Your task to perform on an android device: Open notification settings Image 0: 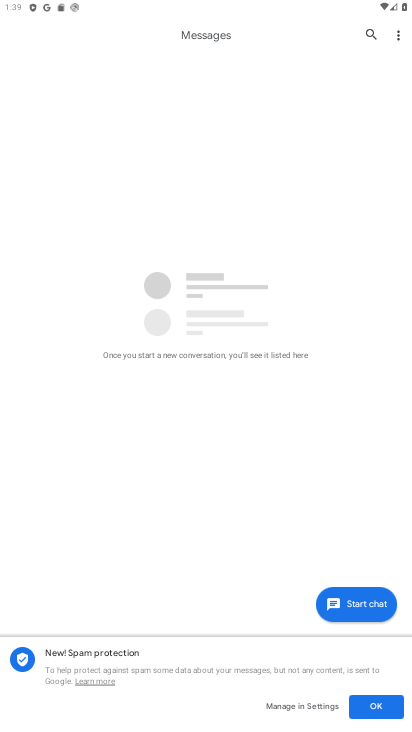
Step 0: press home button
Your task to perform on an android device: Open notification settings Image 1: 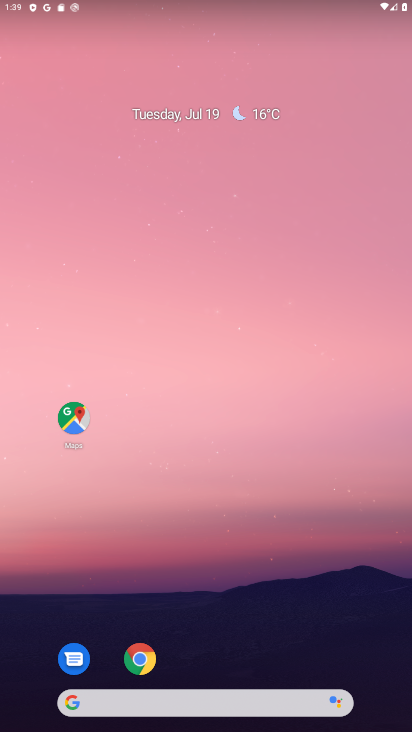
Step 1: drag from (228, 687) to (287, 225)
Your task to perform on an android device: Open notification settings Image 2: 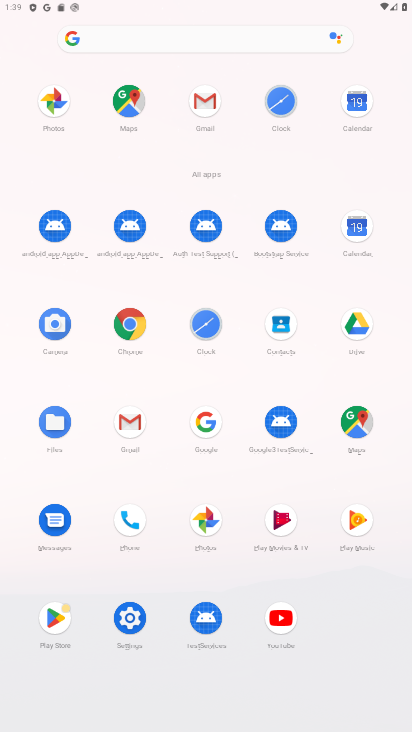
Step 2: click (129, 619)
Your task to perform on an android device: Open notification settings Image 3: 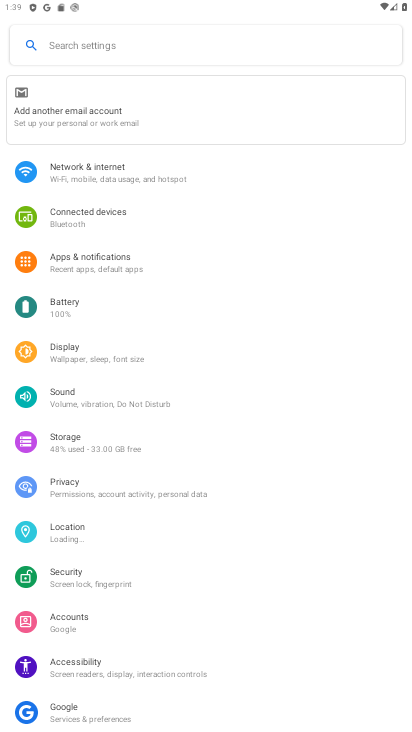
Step 3: click (117, 261)
Your task to perform on an android device: Open notification settings Image 4: 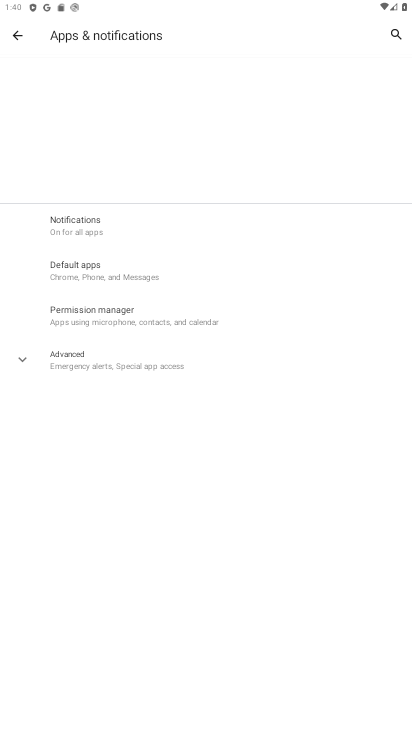
Step 4: click (170, 238)
Your task to perform on an android device: Open notification settings Image 5: 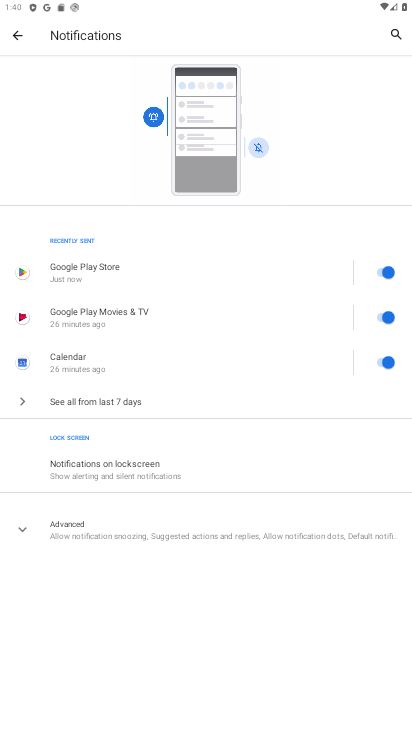
Step 5: task complete